Your task to perform on an android device: Open Chrome and go to settings Image 0: 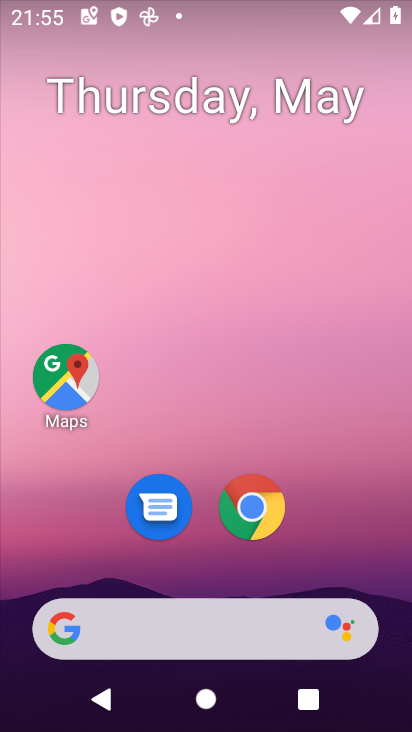
Step 0: drag from (218, 653) to (377, 249)
Your task to perform on an android device: Open Chrome and go to settings Image 1: 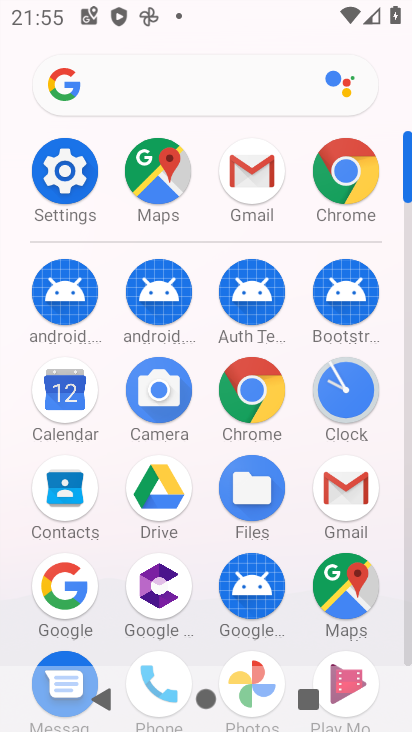
Step 1: click (360, 164)
Your task to perform on an android device: Open Chrome and go to settings Image 2: 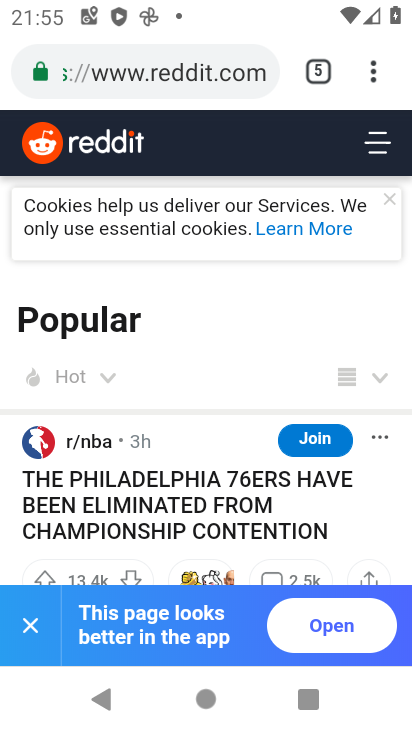
Step 2: click (368, 94)
Your task to perform on an android device: Open Chrome and go to settings Image 3: 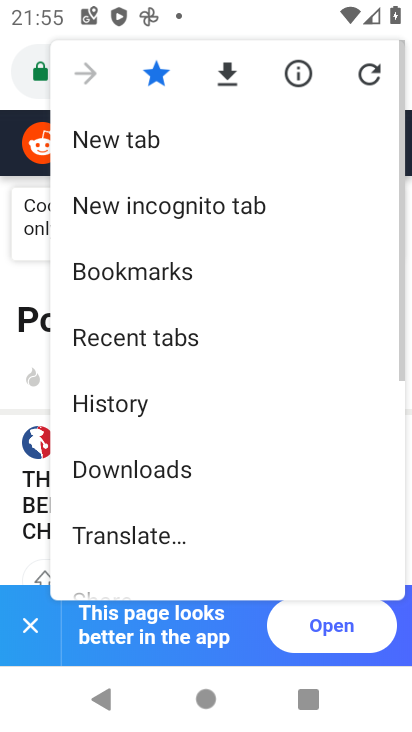
Step 3: drag from (141, 529) to (247, 349)
Your task to perform on an android device: Open Chrome and go to settings Image 4: 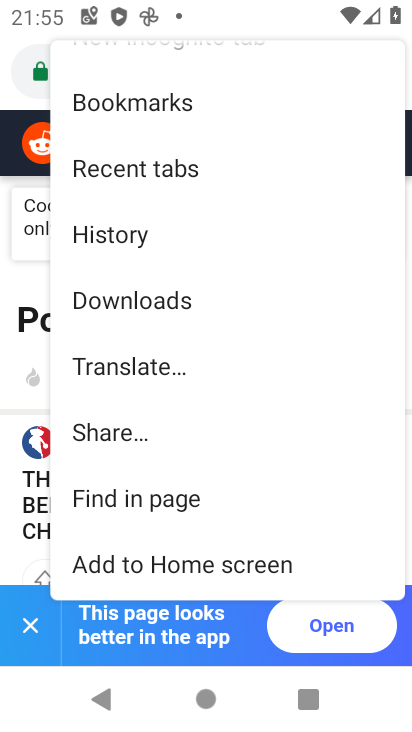
Step 4: drag from (140, 467) to (218, 266)
Your task to perform on an android device: Open Chrome and go to settings Image 5: 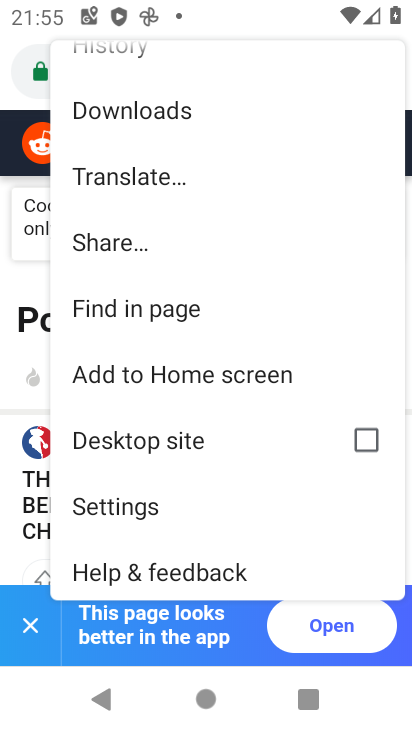
Step 5: click (123, 508)
Your task to perform on an android device: Open Chrome and go to settings Image 6: 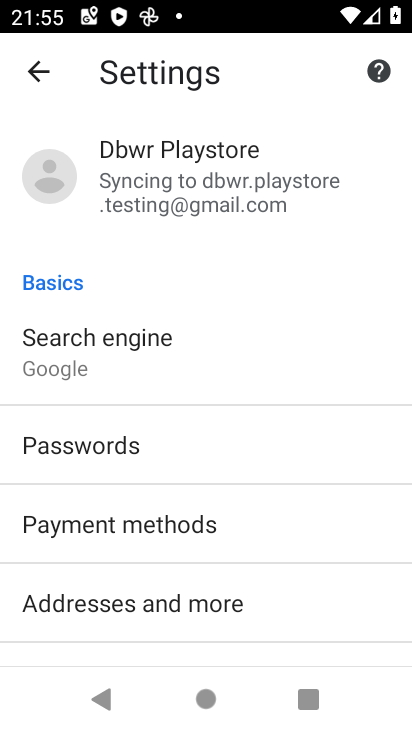
Step 6: task complete